Your task to perform on an android device: open a bookmark in the chrome app Image 0: 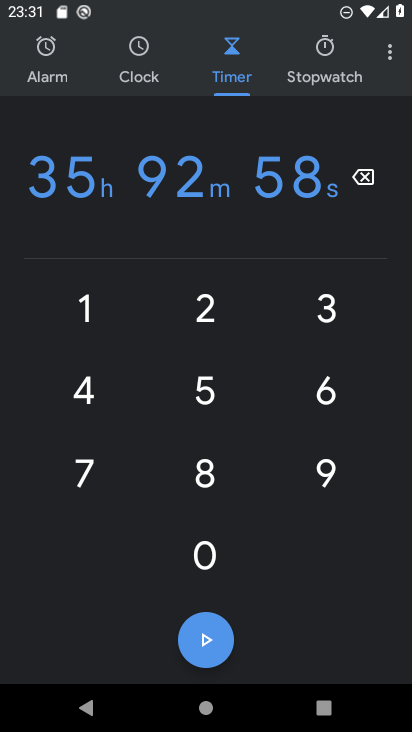
Step 0: press home button
Your task to perform on an android device: open a bookmark in the chrome app Image 1: 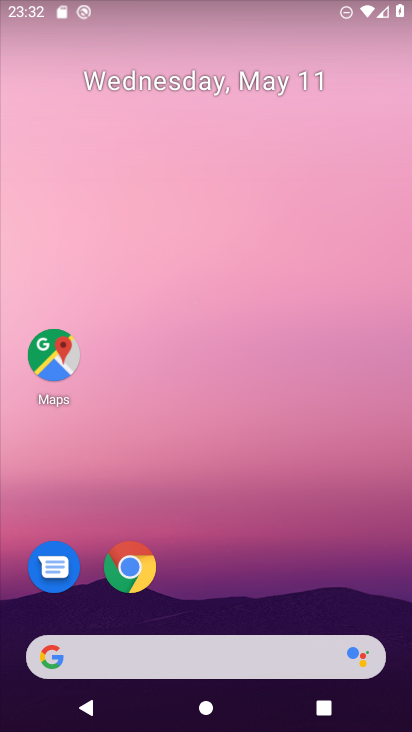
Step 1: click (128, 572)
Your task to perform on an android device: open a bookmark in the chrome app Image 2: 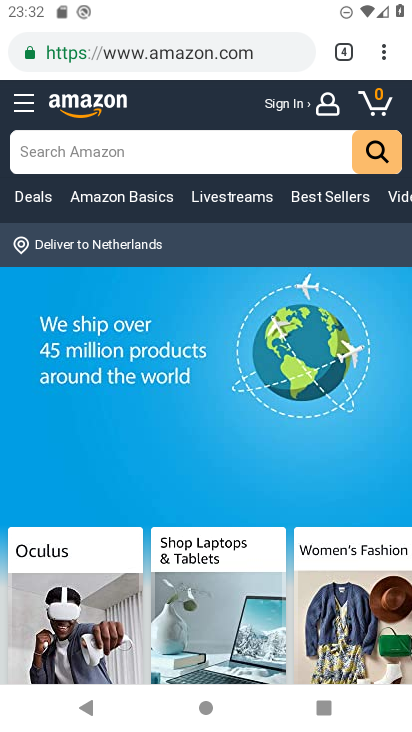
Step 2: click (383, 49)
Your task to perform on an android device: open a bookmark in the chrome app Image 3: 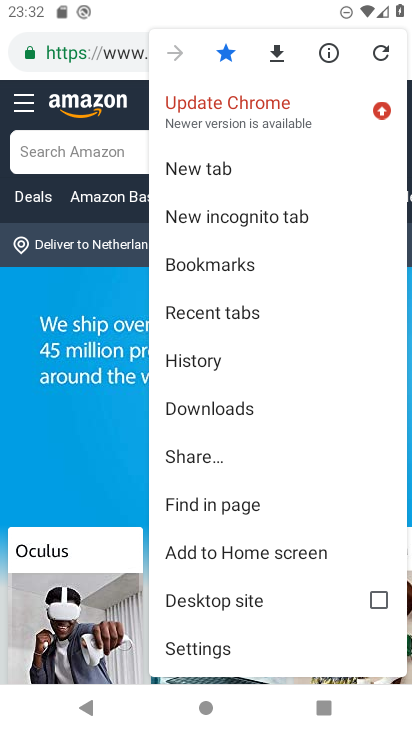
Step 3: click (243, 262)
Your task to perform on an android device: open a bookmark in the chrome app Image 4: 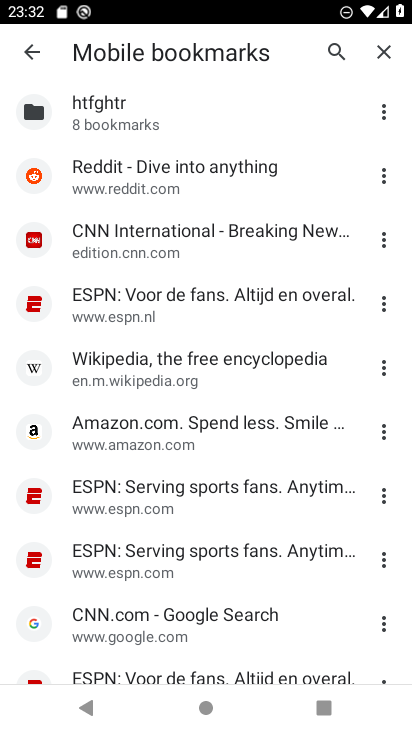
Step 4: click (303, 303)
Your task to perform on an android device: open a bookmark in the chrome app Image 5: 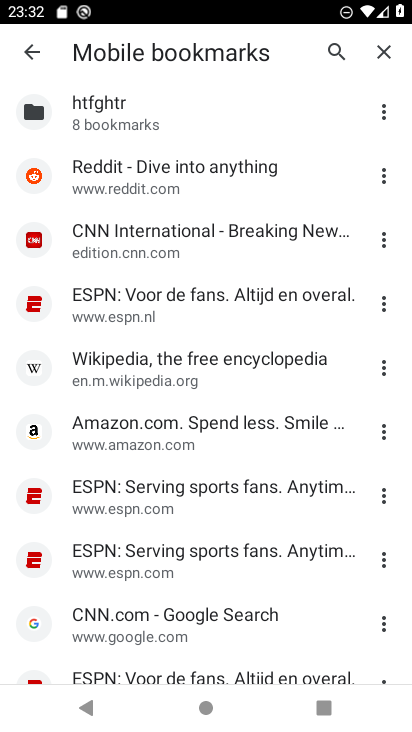
Step 5: click (303, 303)
Your task to perform on an android device: open a bookmark in the chrome app Image 6: 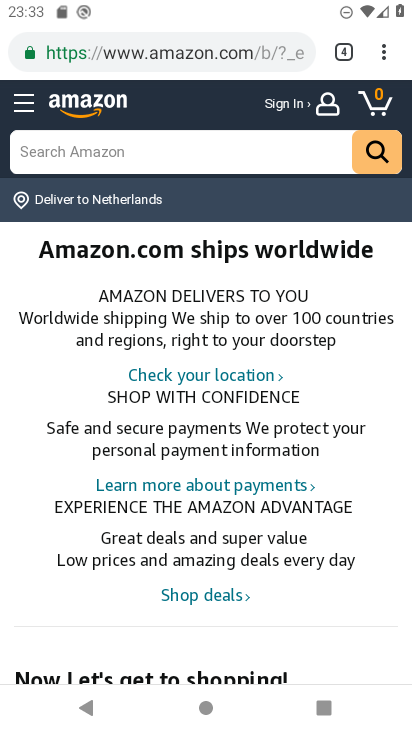
Step 6: task complete